Your task to perform on an android device: open sync settings in chrome Image 0: 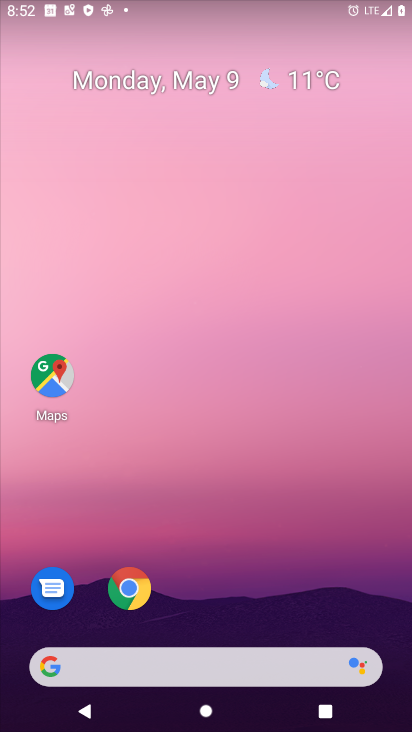
Step 0: drag from (307, 617) to (221, 40)
Your task to perform on an android device: open sync settings in chrome Image 1: 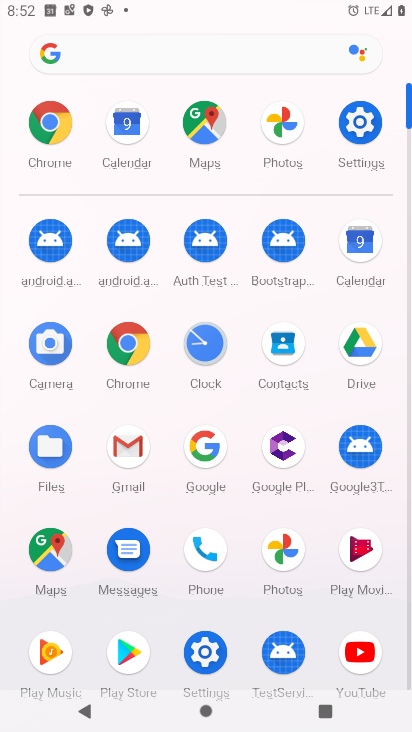
Step 1: click (141, 374)
Your task to perform on an android device: open sync settings in chrome Image 2: 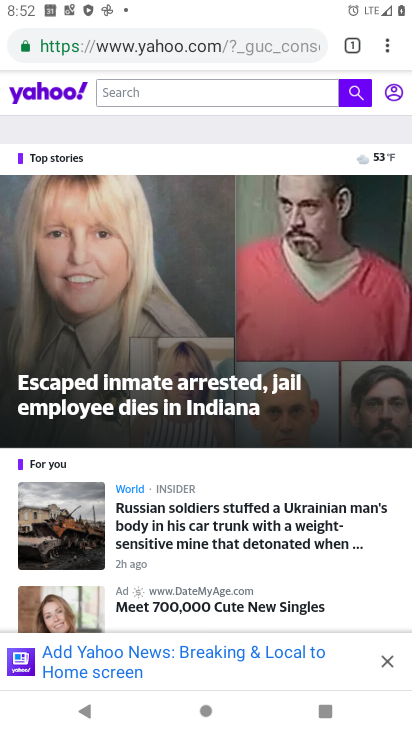
Step 2: press back button
Your task to perform on an android device: open sync settings in chrome Image 3: 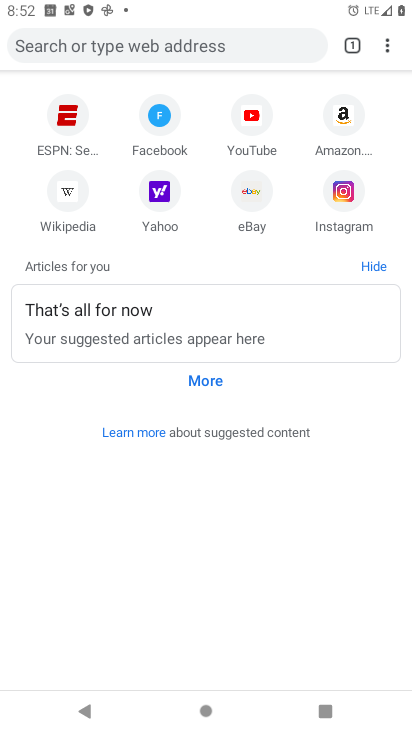
Step 3: click (382, 45)
Your task to perform on an android device: open sync settings in chrome Image 4: 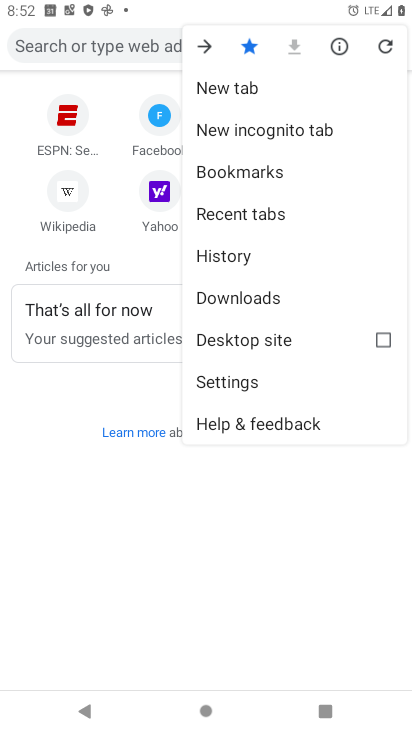
Step 4: click (241, 372)
Your task to perform on an android device: open sync settings in chrome Image 5: 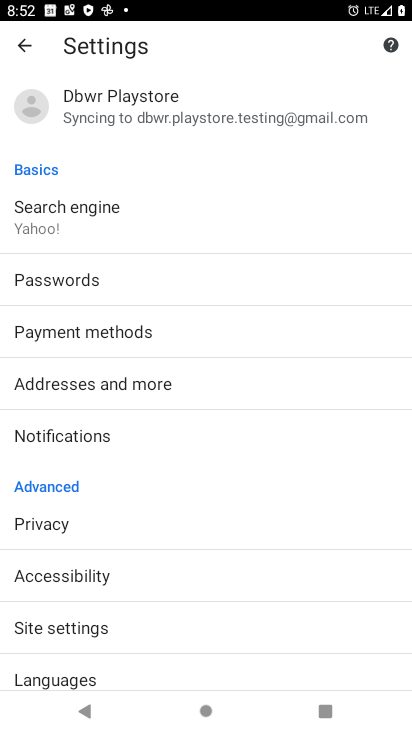
Step 5: drag from (150, 662) to (147, 538)
Your task to perform on an android device: open sync settings in chrome Image 6: 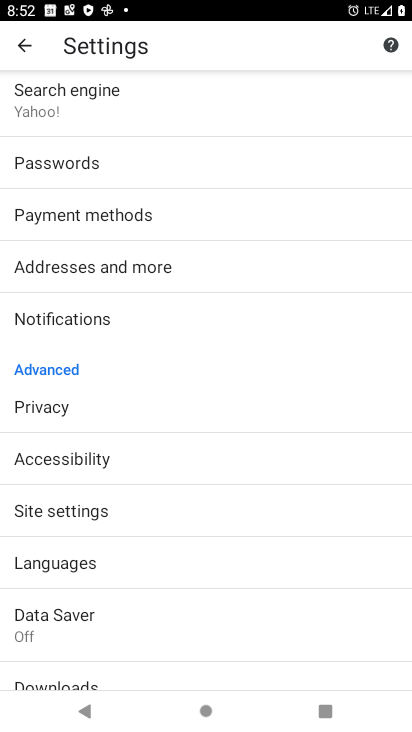
Step 6: click (71, 498)
Your task to perform on an android device: open sync settings in chrome Image 7: 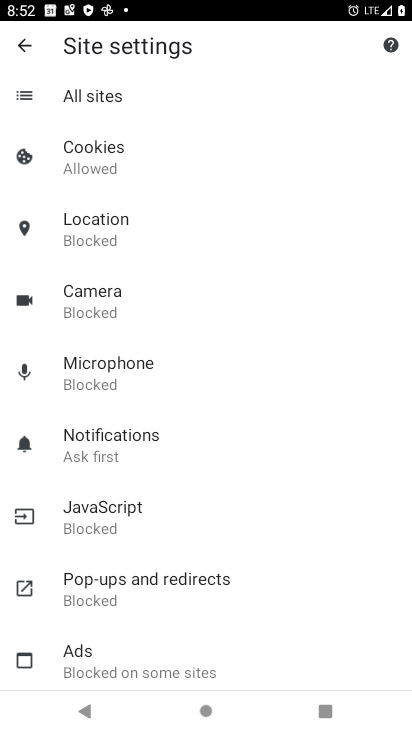
Step 7: drag from (126, 640) to (185, 291)
Your task to perform on an android device: open sync settings in chrome Image 8: 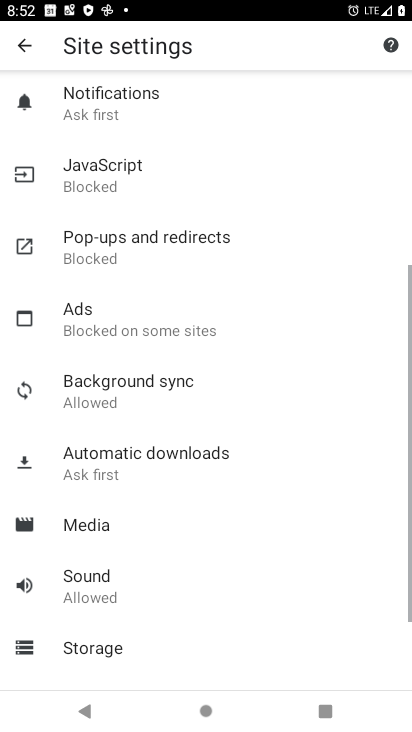
Step 8: click (139, 402)
Your task to perform on an android device: open sync settings in chrome Image 9: 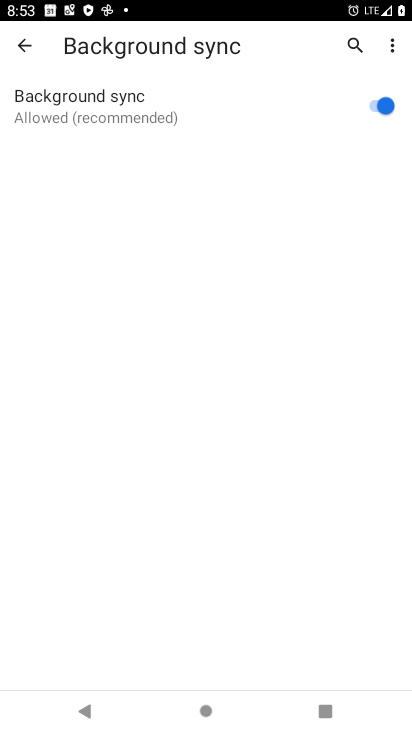
Step 9: task complete